Your task to perform on an android device: add a contact Image 0: 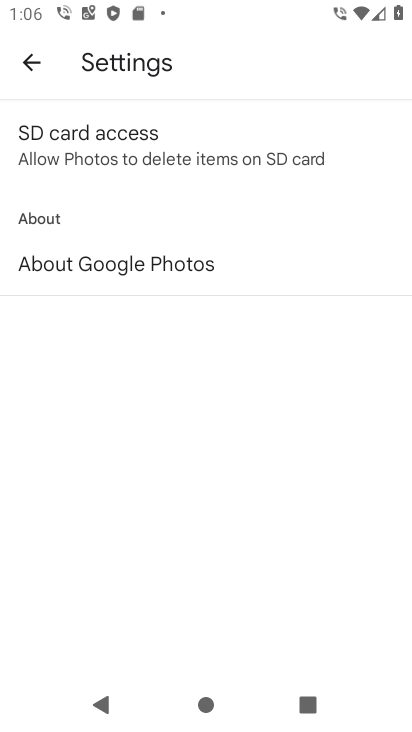
Step 0: press home button
Your task to perform on an android device: add a contact Image 1: 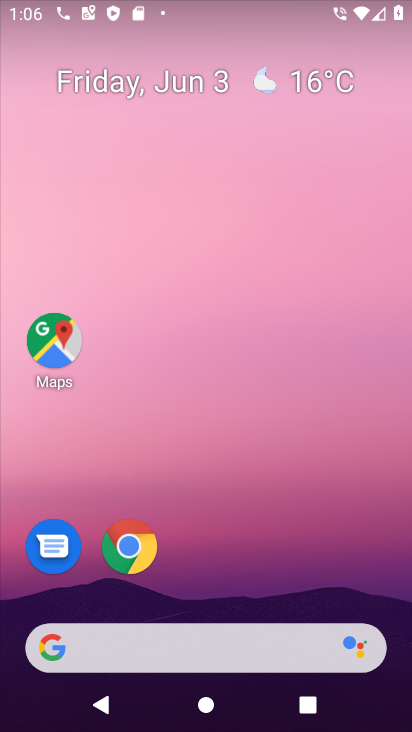
Step 1: drag from (217, 515) to (192, 119)
Your task to perform on an android device: add a contact Image 2: 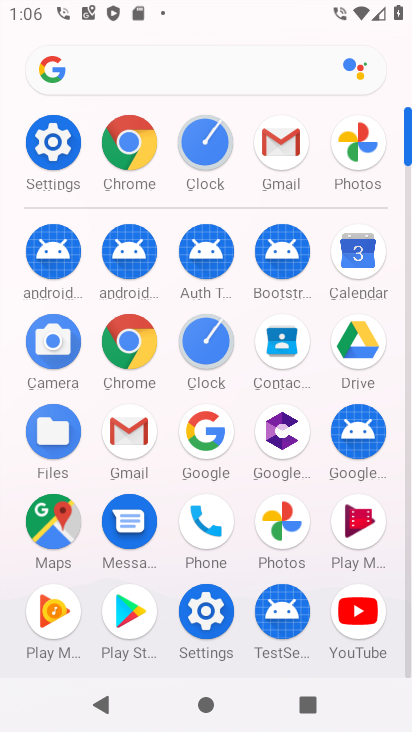
Step 2: click (286, 349)
Your task to perform on an android device: add a contact Image 3: 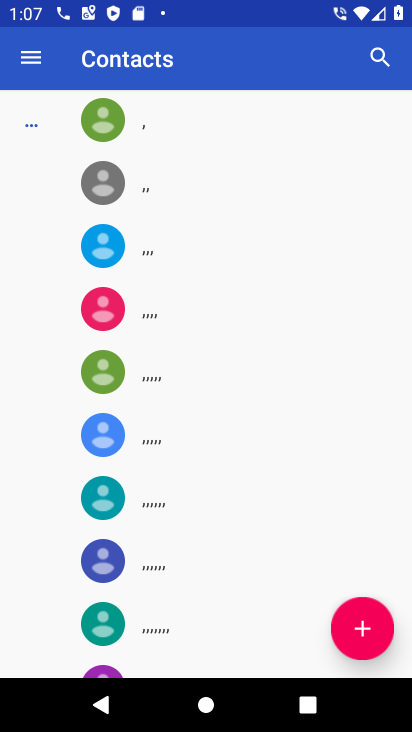
Step 3: click (360, 624)
Your task to perform on an android device: add a contact Image 4: 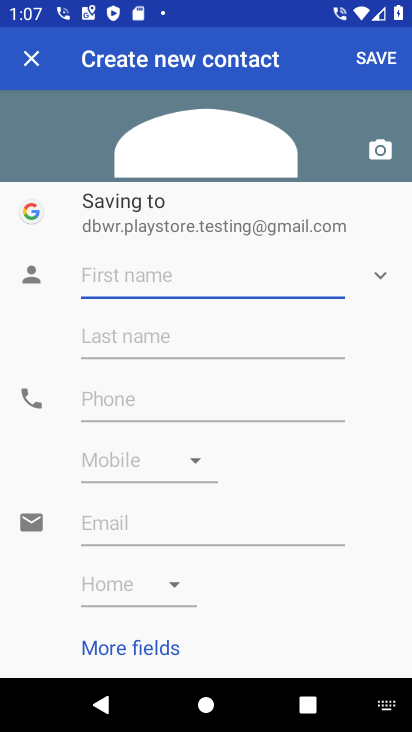
Step 4: type "jhgf"
Your task to perform on an android device: add a contact Image 5: 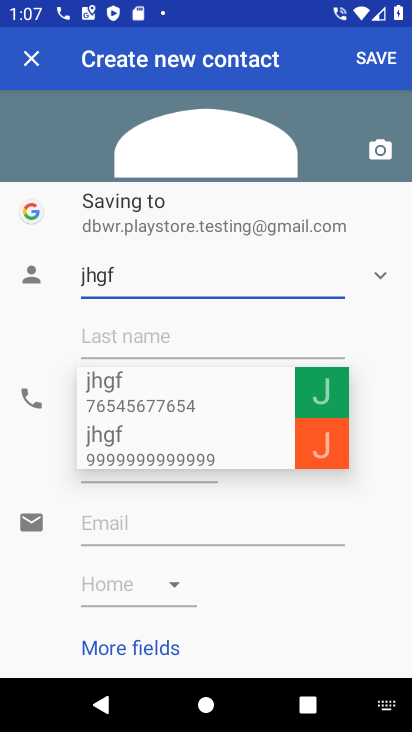
Step 5: click (200, 401)
Your task to perform on an android device: add a contact Image 6: 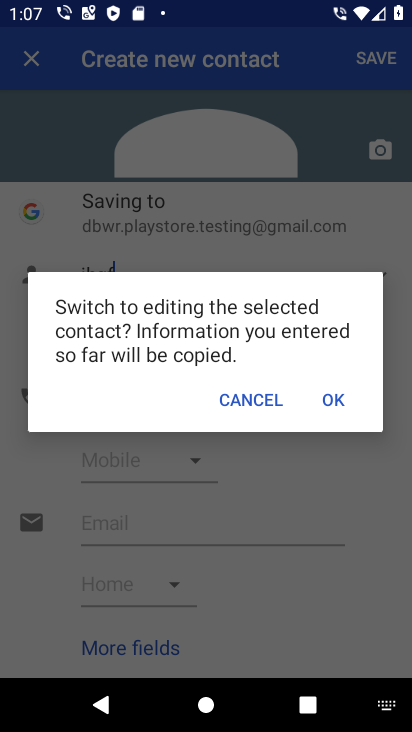
Step 6: click (255, 396)
Your task to perform on an android device: add a contact Image 7: 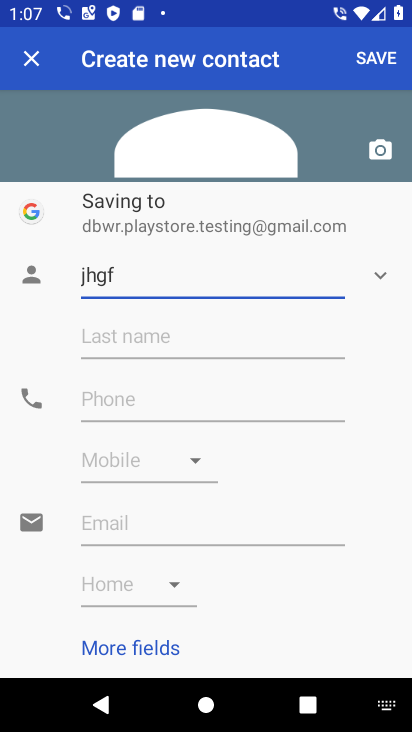
Step 7: click (162, 402)
Your task to perform on an android device: add a contact Image 8: 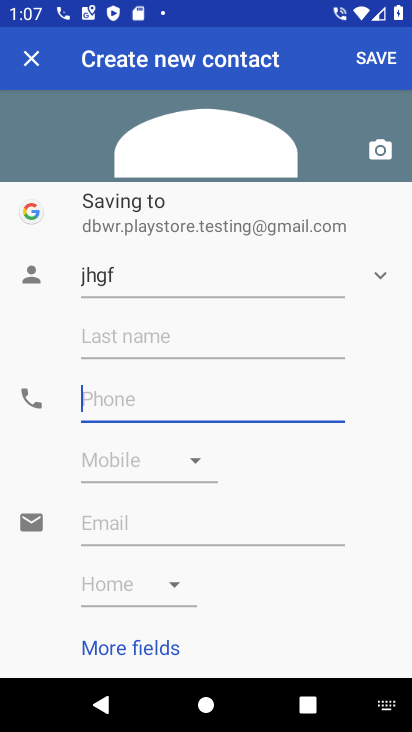
Step 8: type "765555555555"
Your task to perform on an android device: add a contact Image 9: 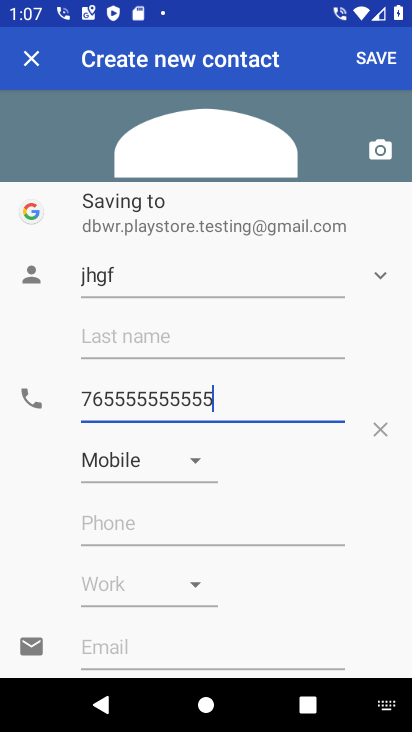
Step 9: click (379, 54)
Your task to perform on an android device: add a contact Image 10: 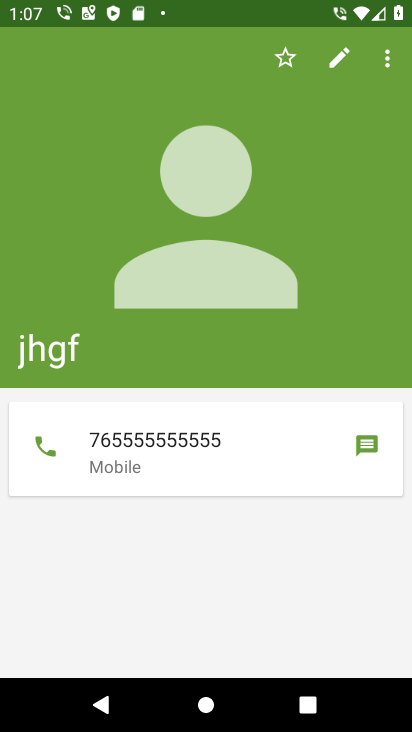
Step 10: task complete